Your task to perform on an android device: turn on airplane mode Image 0: 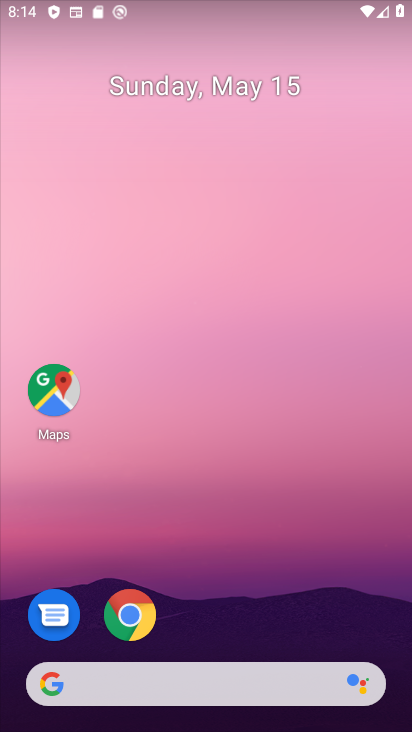
Step 0: drag from (191, 651) to (189, 391)
Your task to perform on an android device: turn on airplane mode Image 1: 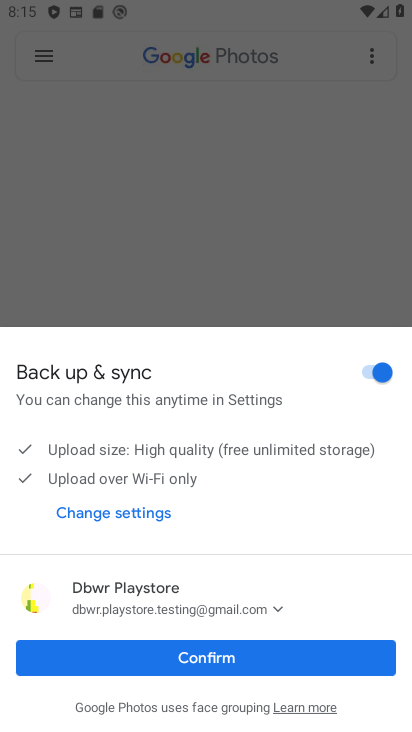
Step 1: press home button
Your task to perform on an android device: turn on airplane mode Image 2: 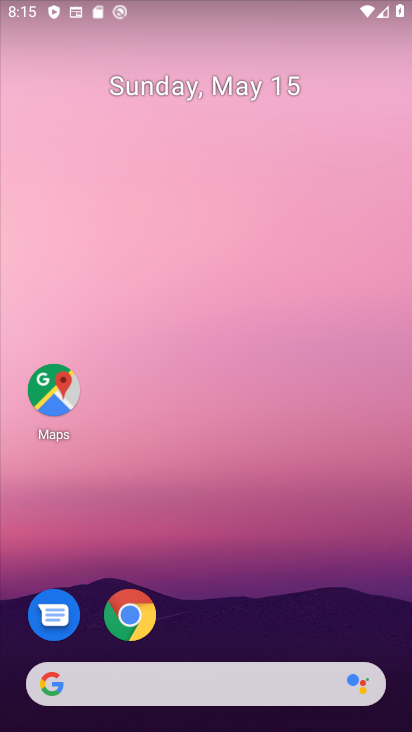
Step 2: drag from (146, 655) to (170, 313)
Your task to perform on an android device: turn on airplane mode Image 3: 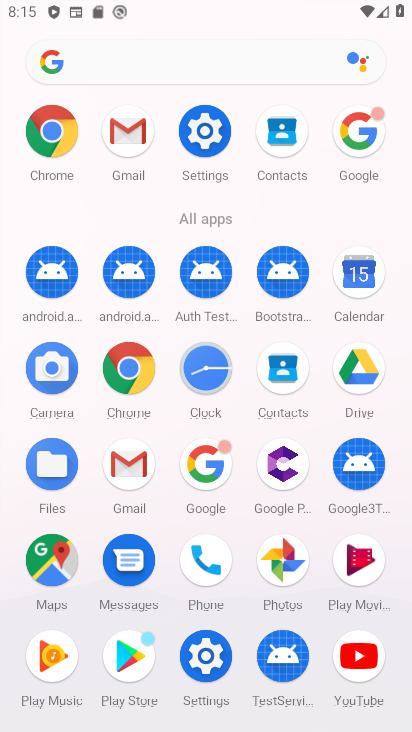
Step 3: click (207, 127)
Your task to perform on an android device: turn on airplane mode Image 4: 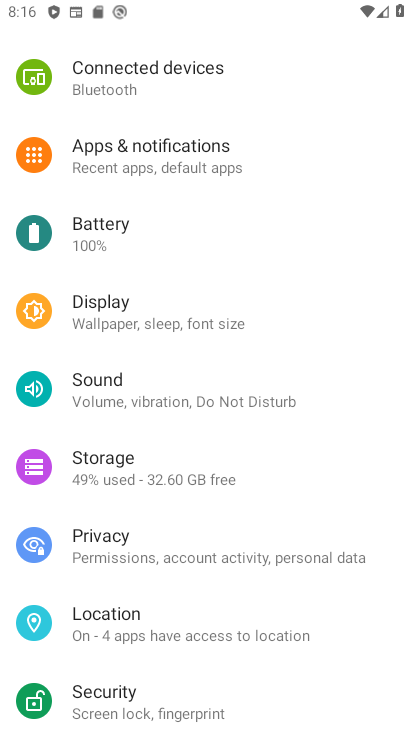
Step 4: drag from (157, 163) to (176, 321)
Your task to perform on an android device: turn on airplane mode Image 5: 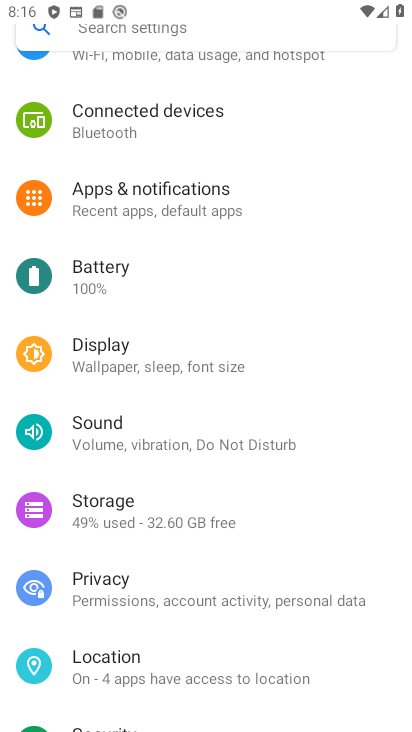
Step 5: drag from (158, 260) to (158, 379)
Your task to perform on an android device: turn on airplane mode Image 6: 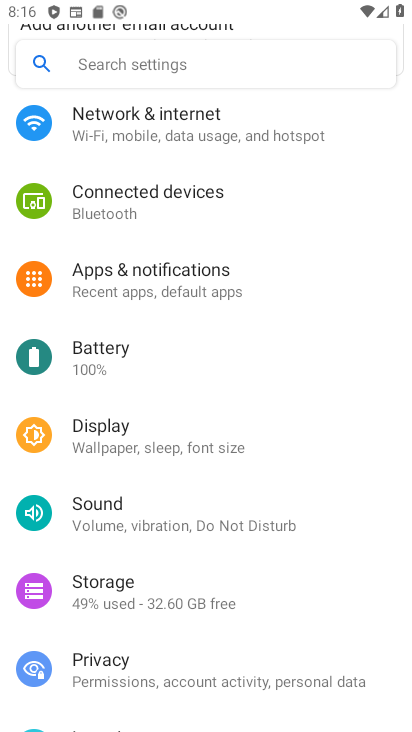
Step 6: click (106, 133)
Your task to perform on an android device: turn on airplane mode Image 7: 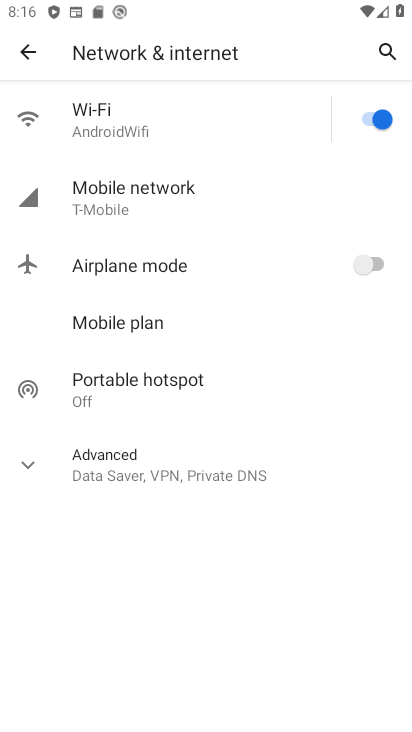
Step 7: click (380, 269)
Your task to perform on an android device: turn on airplane mode Image 8: 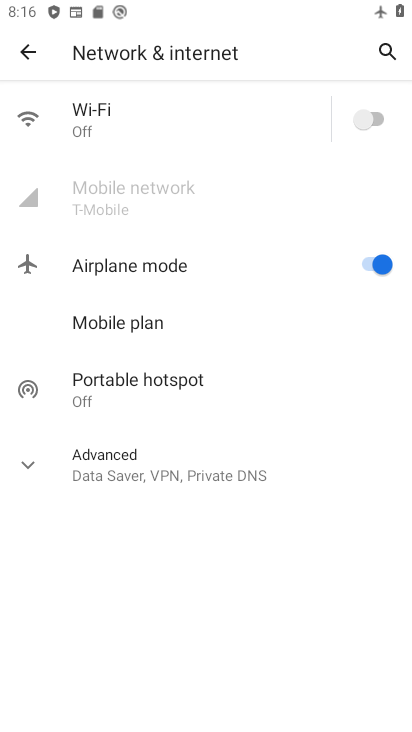
Step 8: task complete